Your task to perform on an android device: empty trash in google photos Image 0: 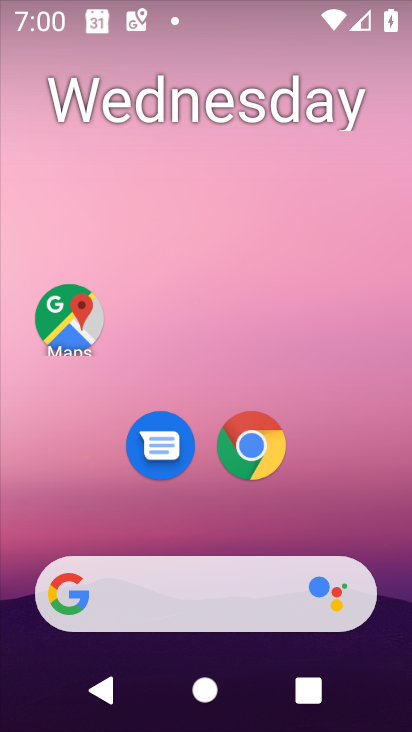
Step 0: drag from (324, 512) to (297, 74)
Your task to perform on an android device: empty trash in google photos Image 1: 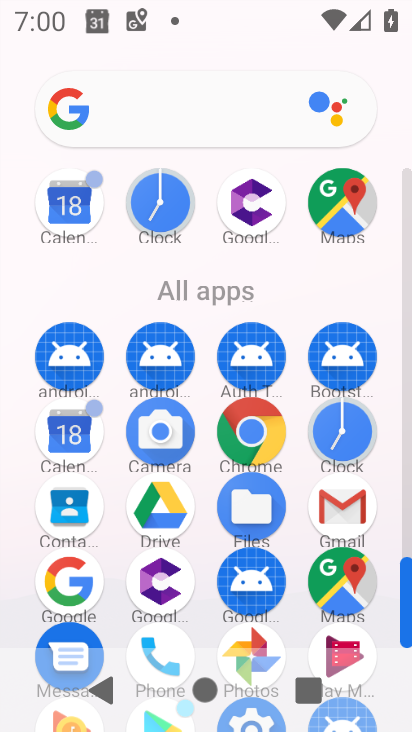
Step 1: drag from (280, 280) to (288, 105)
Your task to perform on an android device: empty trash in google photos Image 2: 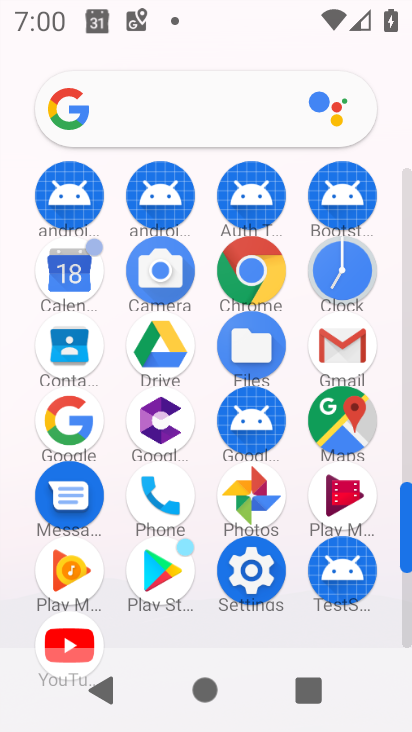
Step 2: click (250, 493)
Your task to perform on an android device: empty trash in google photos Image 3: 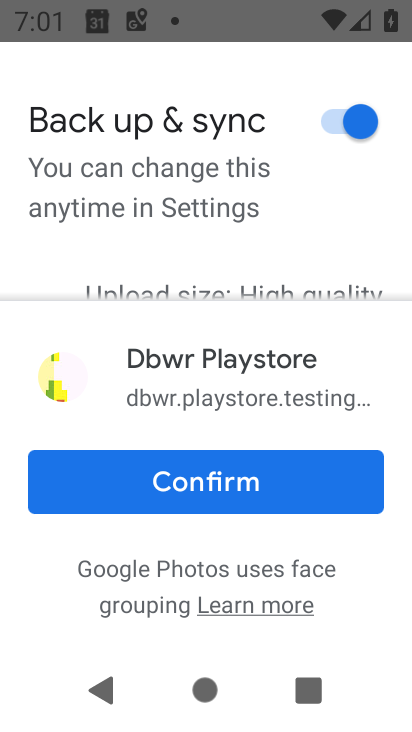
Step 3: click (208, 476)
Your task to perform on an android device: empty trash in google photos Image 4: 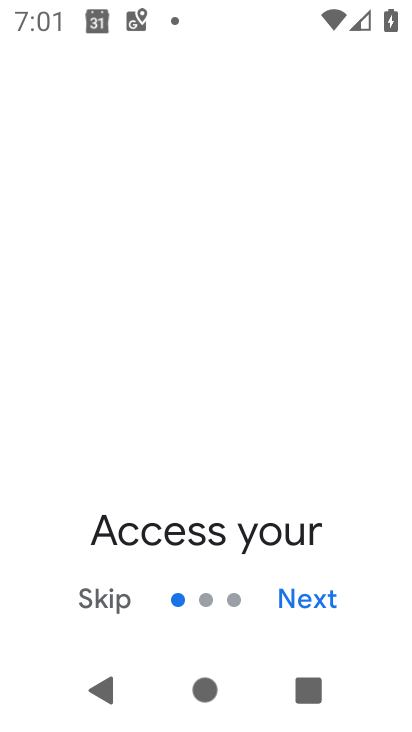
Step 4: click (291, 596)
Your task to perform on an android device: empty trash in google photos Image 5: 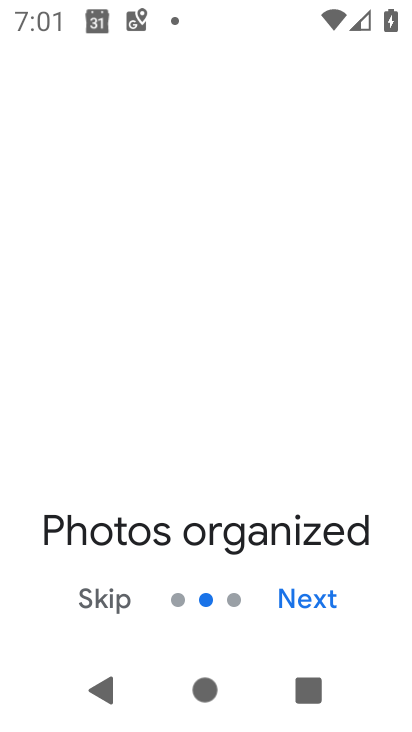
Step 5: click (291, 596)
Your task to perform on an android device: empty trash in google photos Image 6: 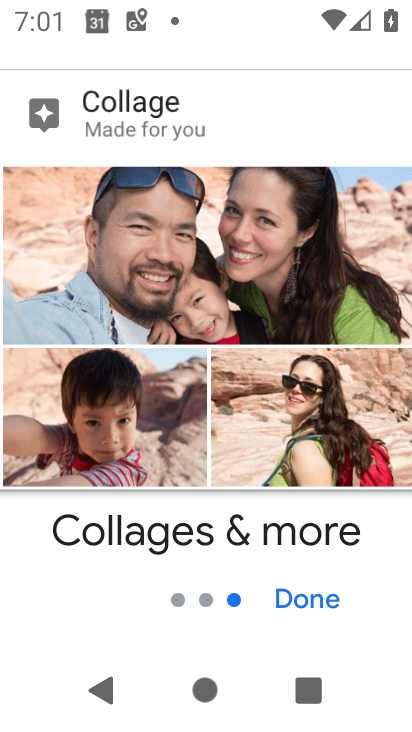
Step 6: click (291, 596)
Your task to perform on an android device: empty trash in google photos Image 7: 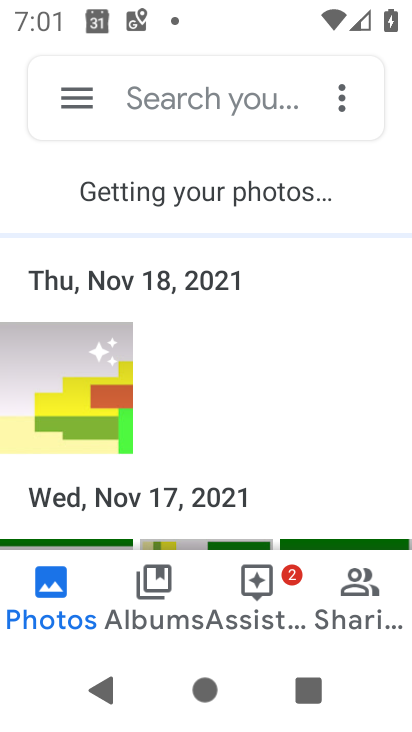
Step 7: click (72, 99)
Your task to perform on an android device: empty trash in google photos Image 8: 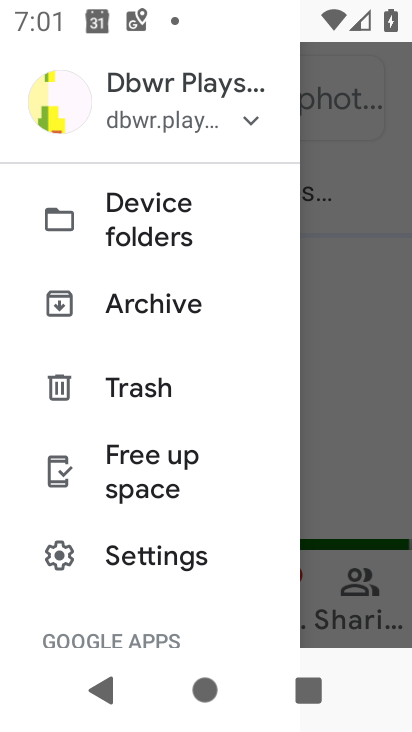
Step 8: click (155, 389)
Your task to perform on an android device: empty trash in google photos Image 9: 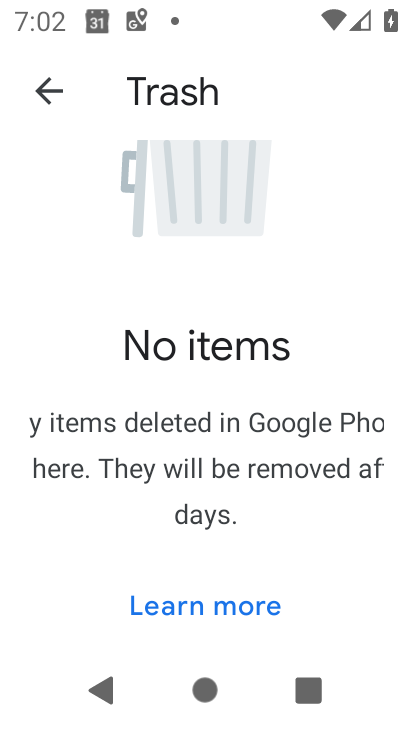
Step 9: task complete